Your task to perform on an android device: make emails show in primary in the gmail app Image 0: 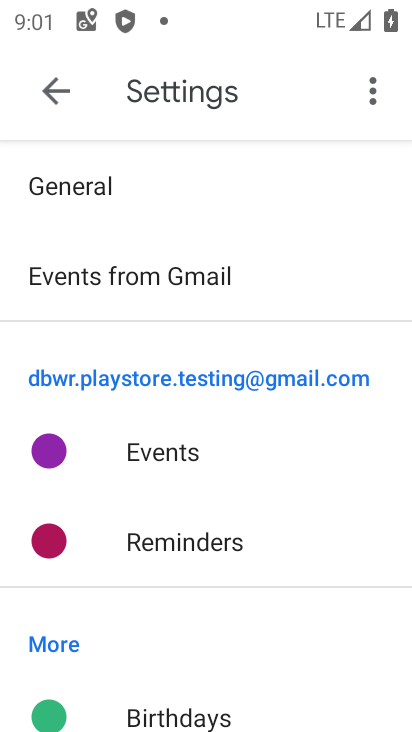
Step 0: press home button
Your task to perform on an android device: make emails show in primary in the gmail app Image 1: 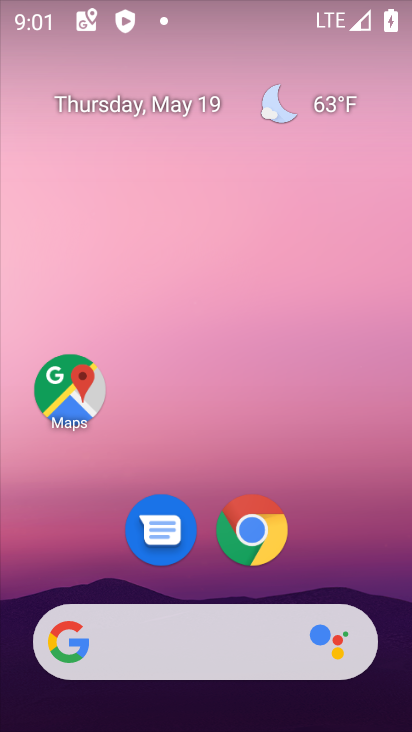
Step 1: drag from (232, 582) to (242, 363)
Your task to perform on an android device: make emails show in primary in the gmail app Image 2: 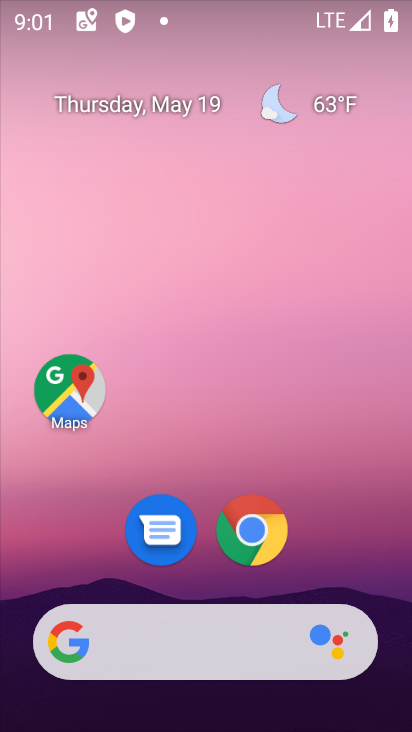
Step 2: click (234, 277)
Your task to perform on an android device: make emails show in primary in the gmail app Image 3: 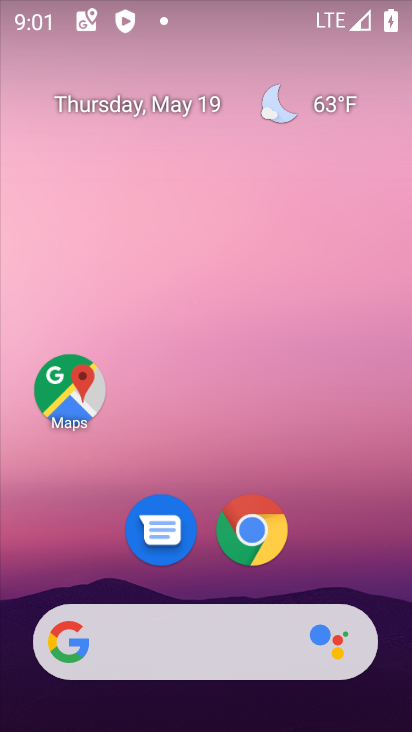
Step 3: drag from (305, 587) to (341, 7)
Your task to perform on an android device: make emails show in primary in the gmail app Image 4: 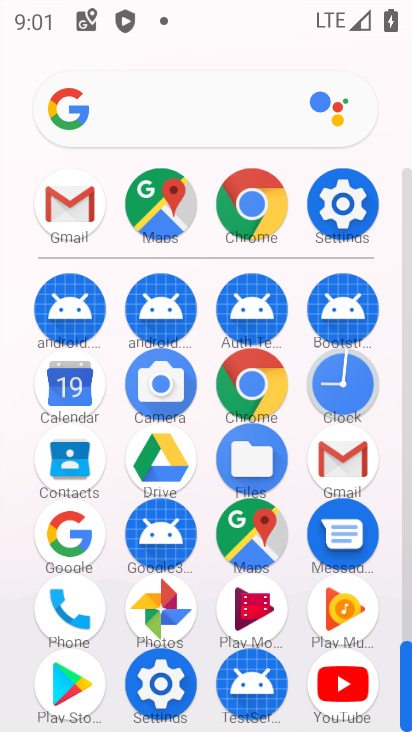
Step 4: click (69, 235)
Your task to perform on an android device: make emails show in primary in the gmail app Image 5: 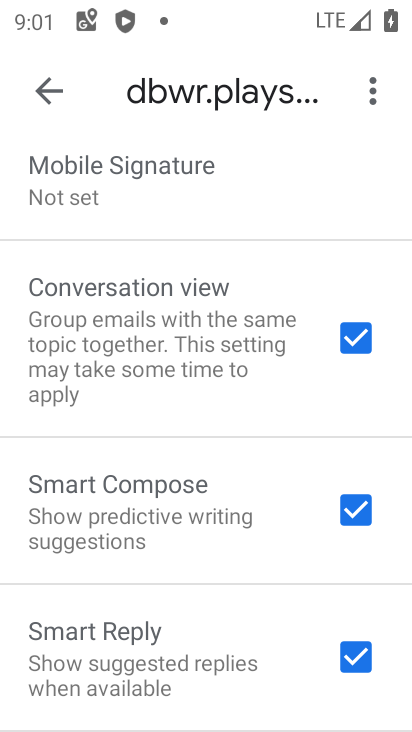
Step 5: click (59, 83)
Your task to perform on an android device: make emails show in primary in the gmail app Image 6: 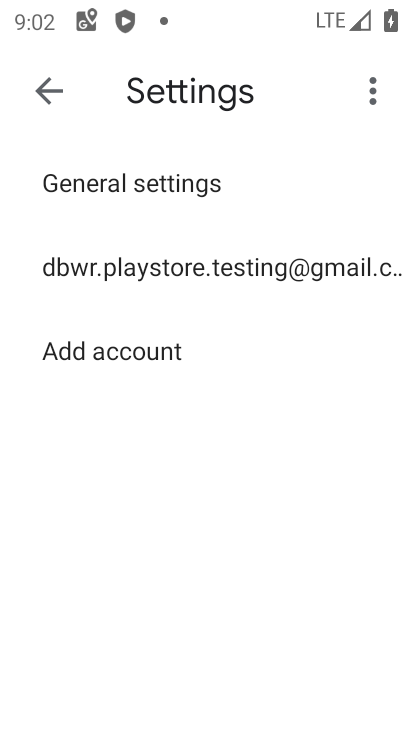
Step 6: click (193, 207)
Your task to perform on an android device: make emails show in primary in the gmail app Image 7: 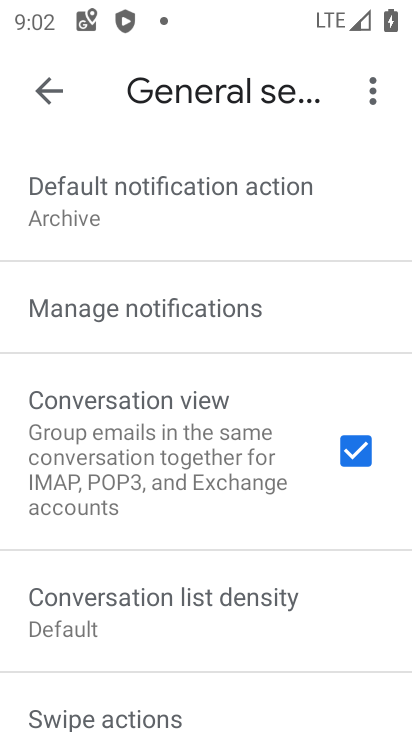
Step 7: click (210, 307)
Your task to perform on an android device: make emails show in primary in the gmail app Image 8: 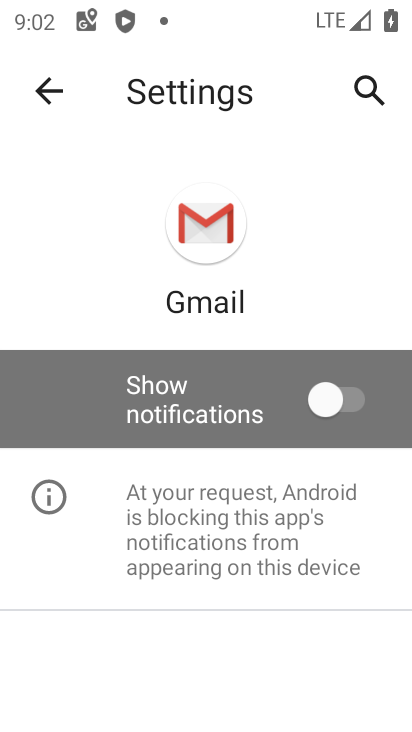
Step 8: task complete